Your task to perform on an android device: Go to CNN.com Image 0: 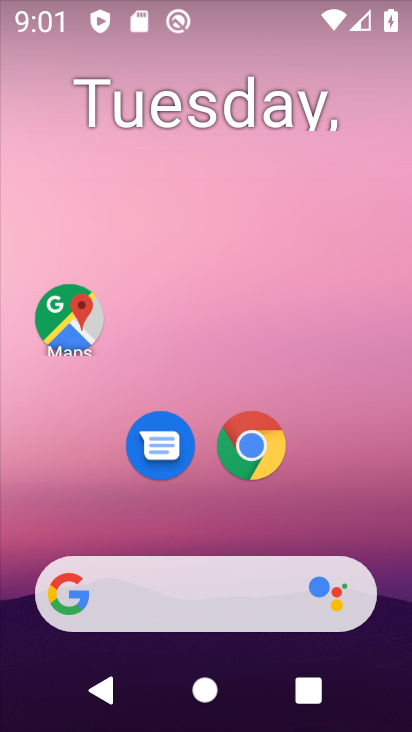
Step 0: drag from (196, 503) to (278, 26)
Your task to perform on an android device: Go to CNN.com Image 1: 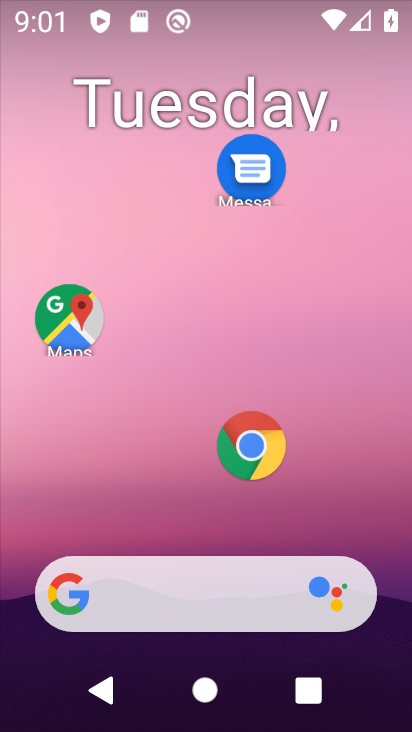
Step 1: click (207, 503)
Your task to perform on an android device: Go to CNN.com Image 2: 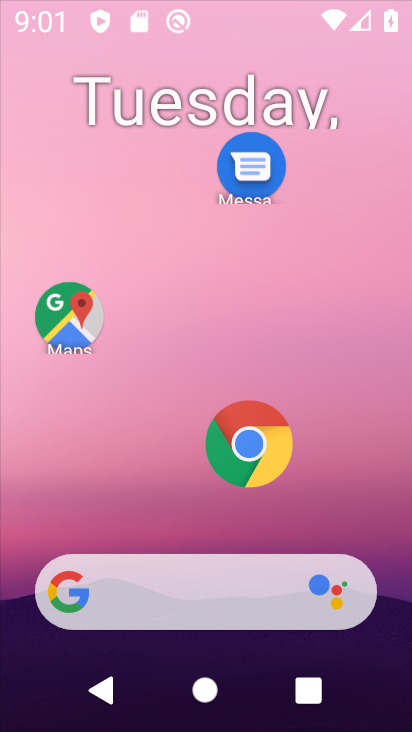
Step 2: drag from (168, 467) to (229, 41)
Your task to perform on an android device: Go to CNN.com Image 3: 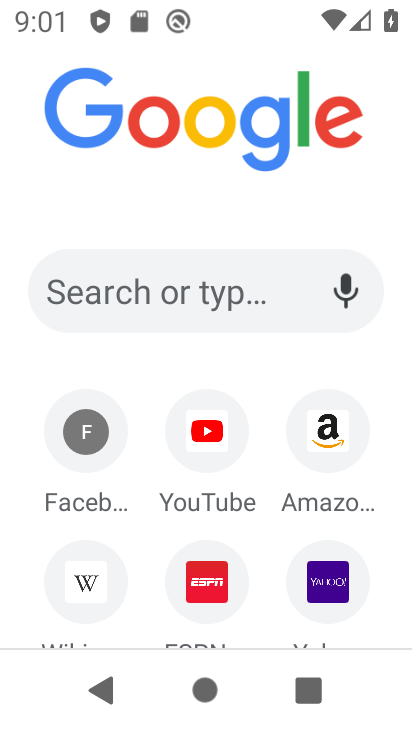
Step 3: click (166, 287)
Your task to perform on an android device: Go to CNN.com Image 4: 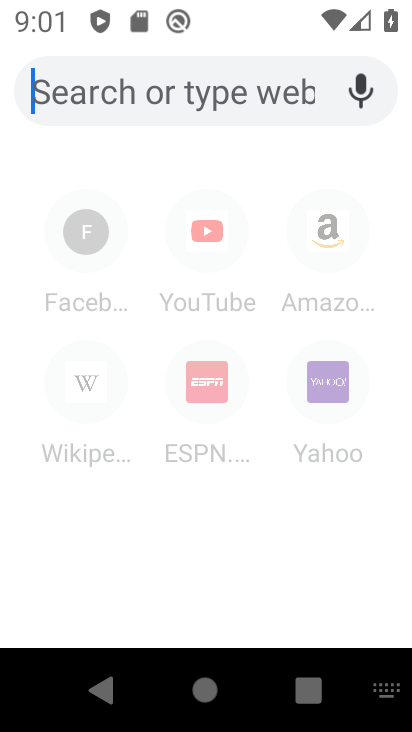
Step 4: type "cnn.com"
Your task to perform on an android device: Go to CNN.com Image 5: 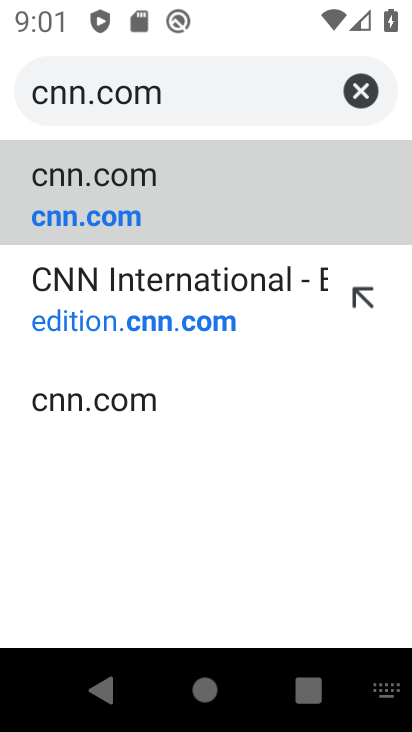
Step 5: click (129, 178)
Your task to perform on an android device: Go to CNN.com Image 6: 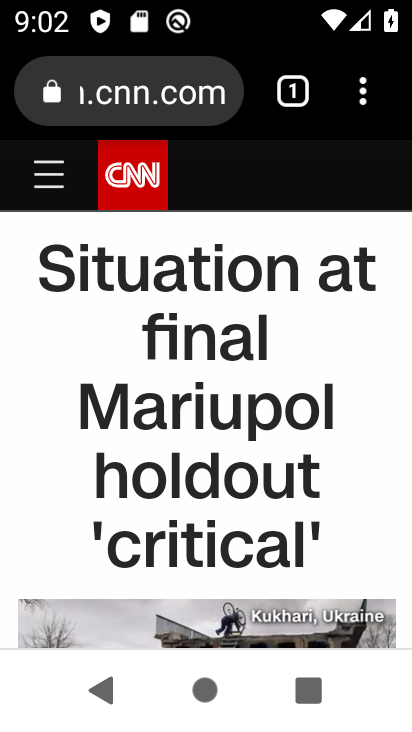
Step 6: task complete